Your task to perform on an android device: open app "Facebook" Image 0: 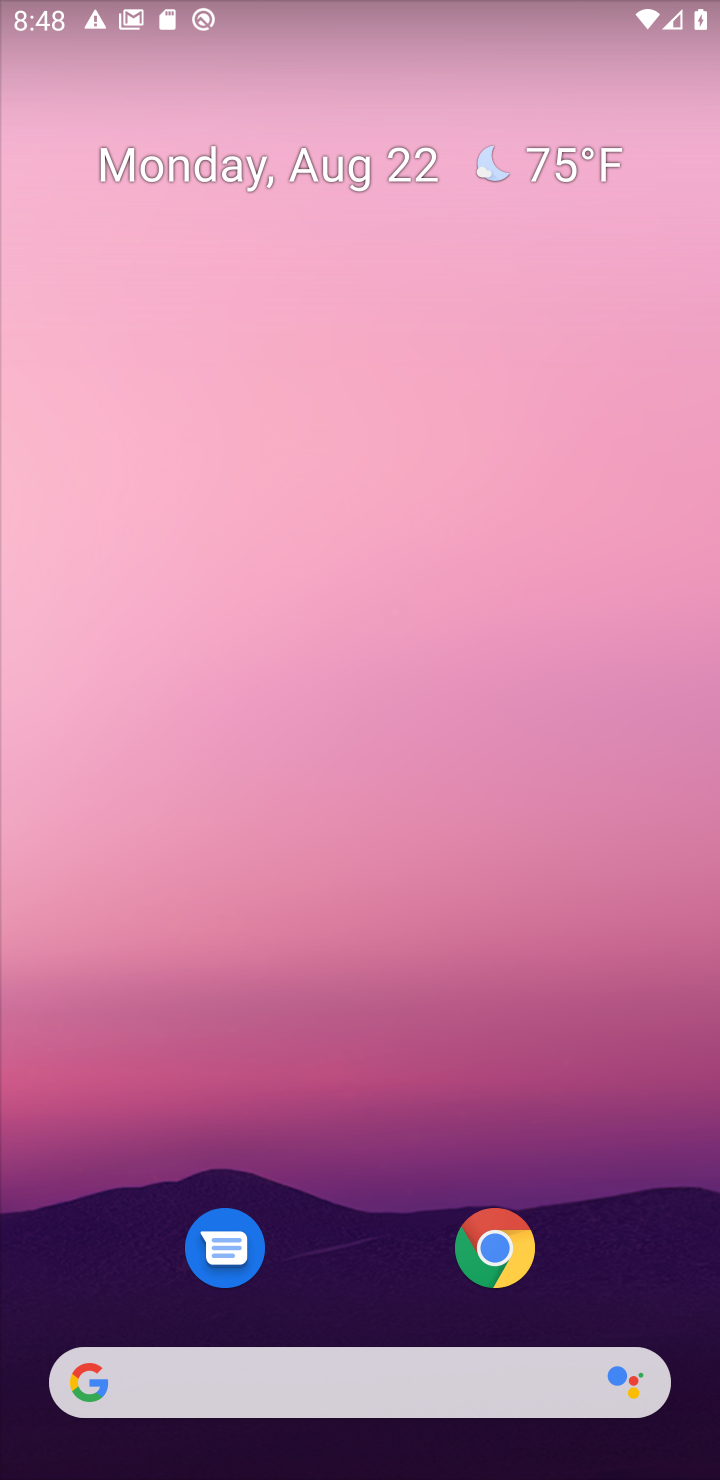
Step 0: drag from (354, 940) to (362, 210)
Your task to perform on an android device: open app "Facebook" Image 1: 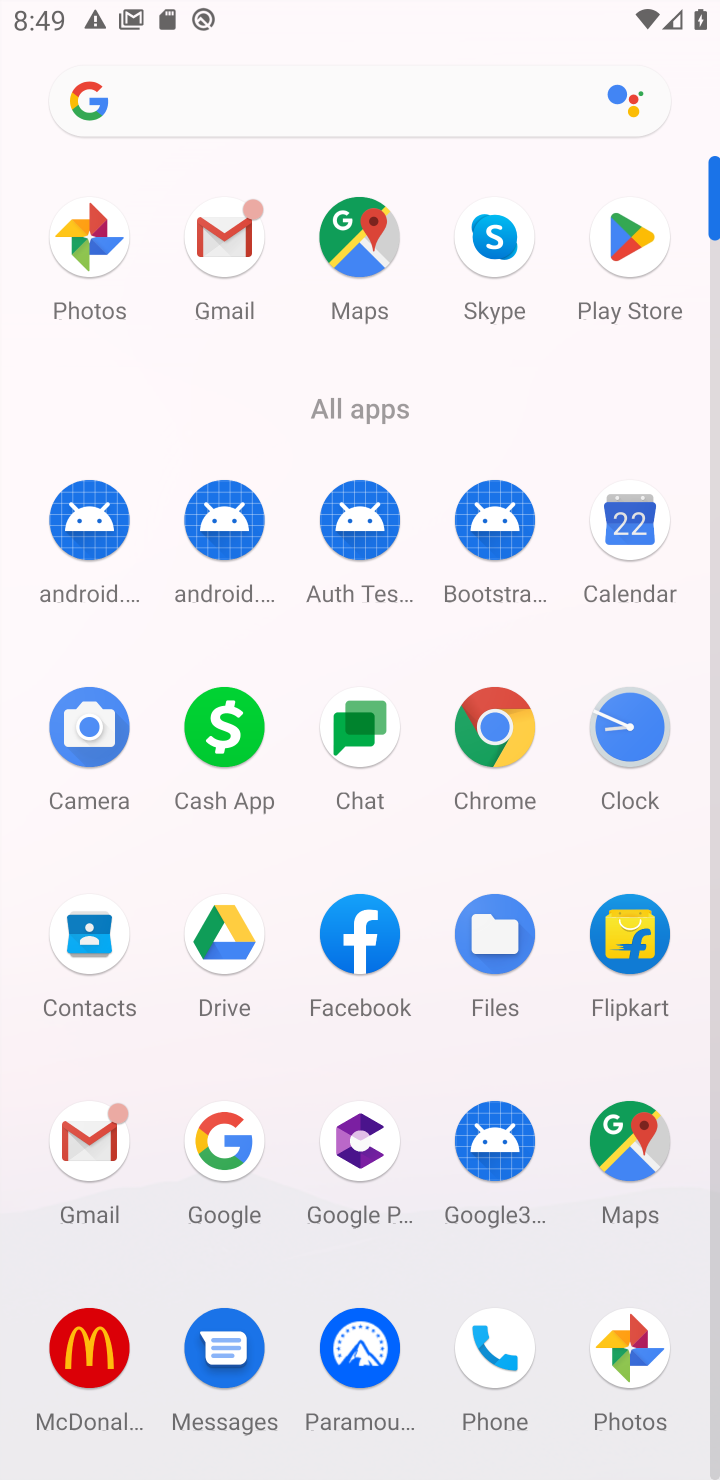
Step 1: drag from (407, 757) to (407, 487)
Your task to perform on an android device: open app "Facebook" Image 2: 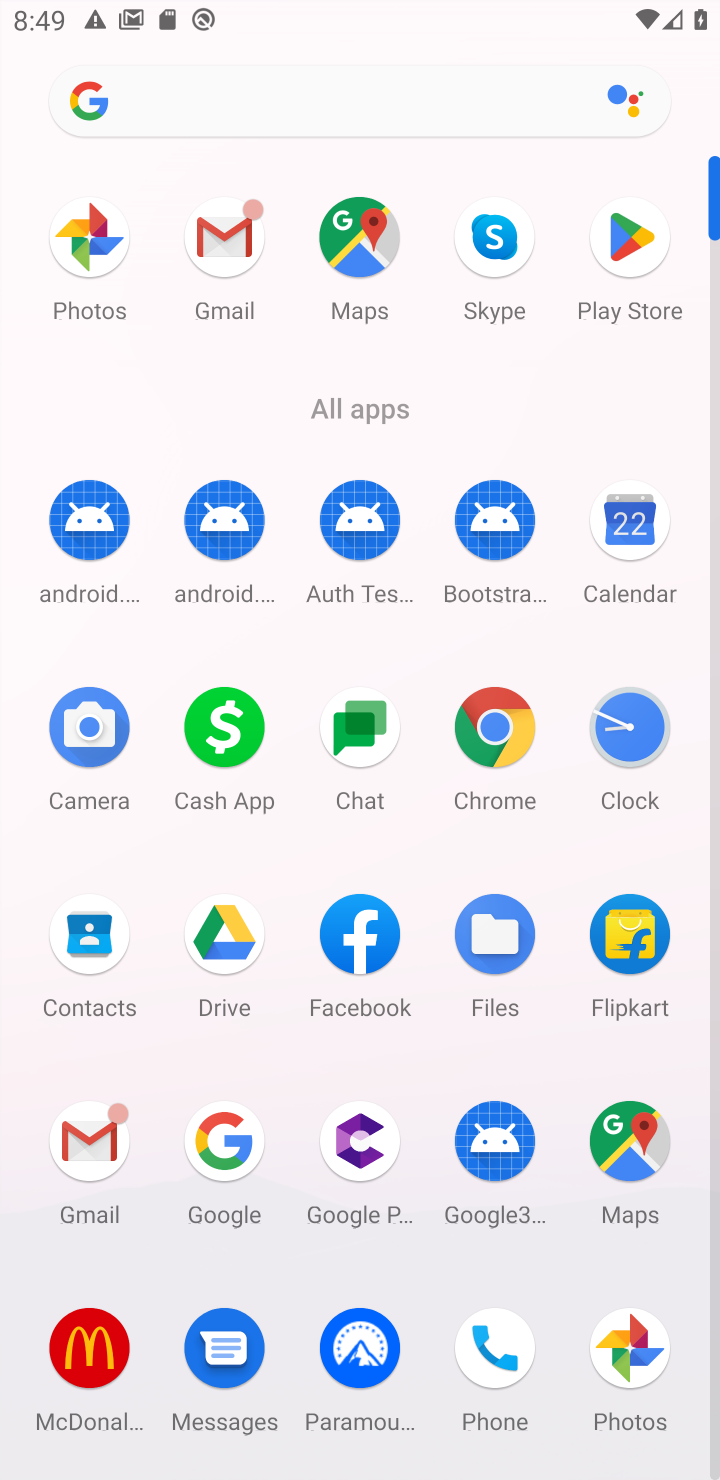
Step 2: click (347, 937)
Your task to perform on an android device: open app "Facebook" Image 3: 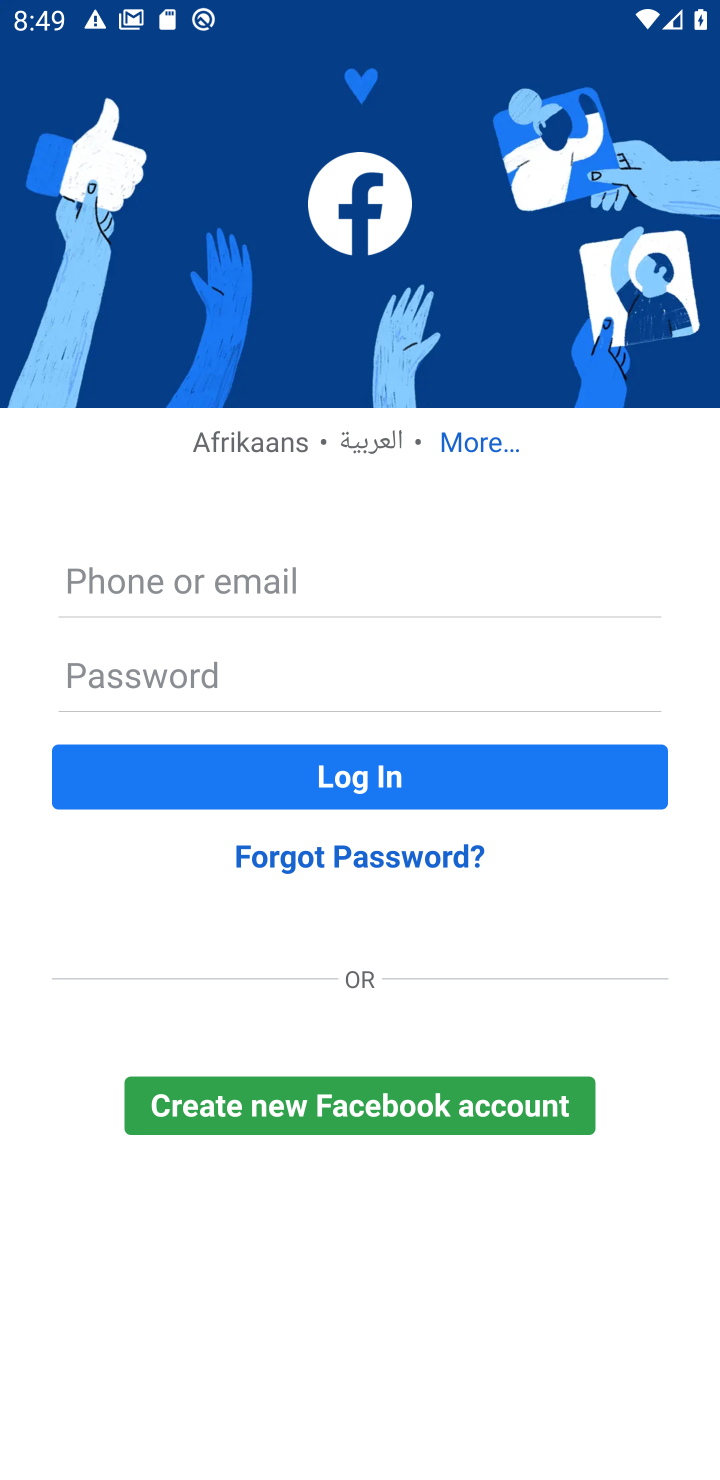
Step 3: task complete